Your task to perform on an android device: find which apps use the phone's location Image 0: 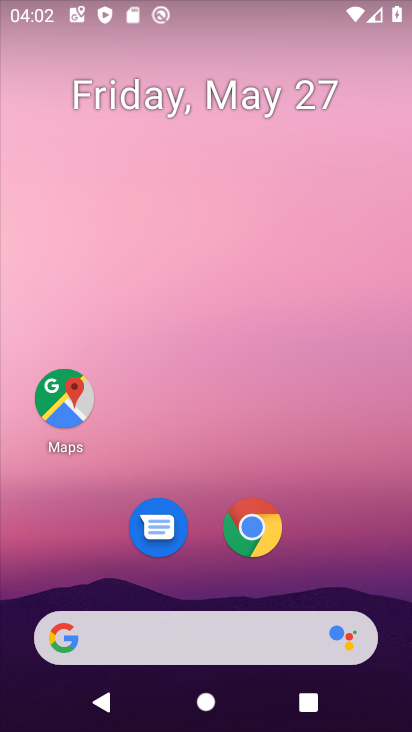
Step 0: drag from (387, 585) to (348, 137)
Your task to perform on an android device: find which apps use the phone's location Image 1: 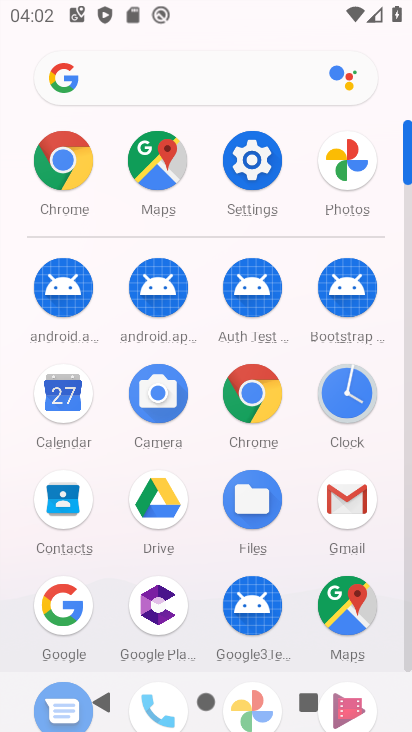
Step 1: click (405, 623)
Your task to perform on an android device: find which apps use the phone's location Image 2: 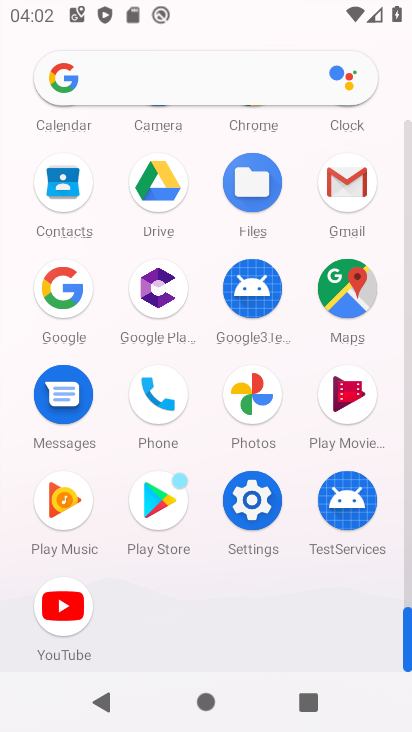
Step 2: click (187, 413)
Your task to perform on an android device: find which apps use the phone's location Image 3: 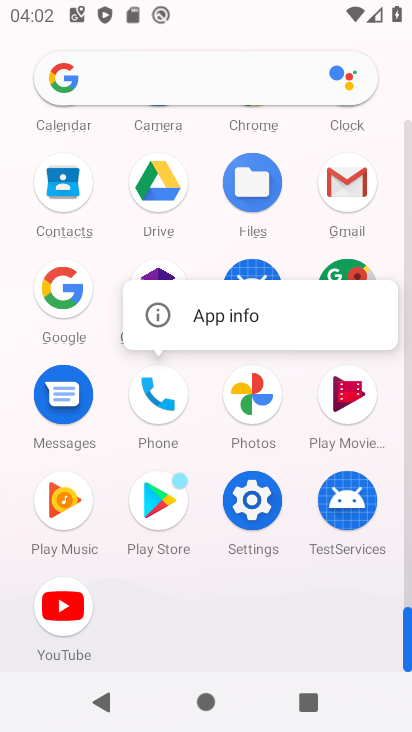
Step 3: click (204, 317)
Your task to perform on an android device: find which apps use the phone's location Image 4: 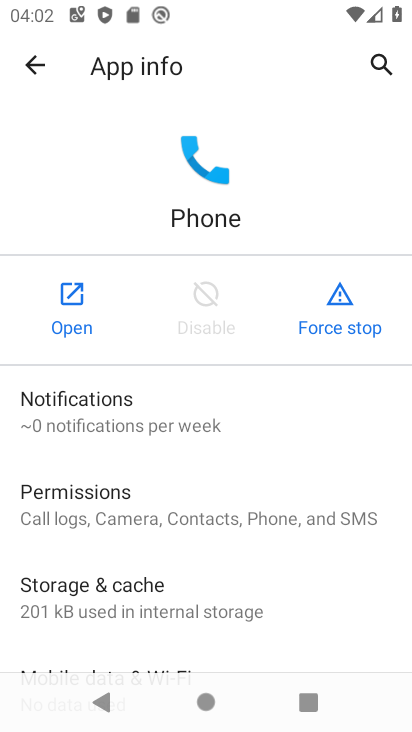
Step 4: click (119, 531)
Your task to perform on an android device: find which apps use the phone's location Image 5: 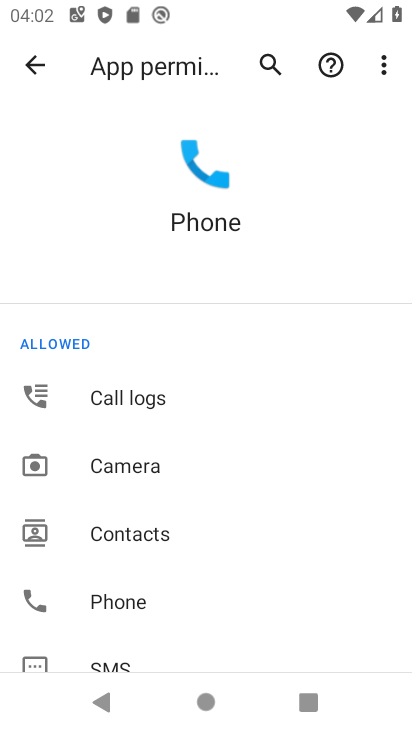
Step 5: drag from (147, 603) to (165, 95)
Your task to perform on an android device: find which apps use the phone's location Image 6: 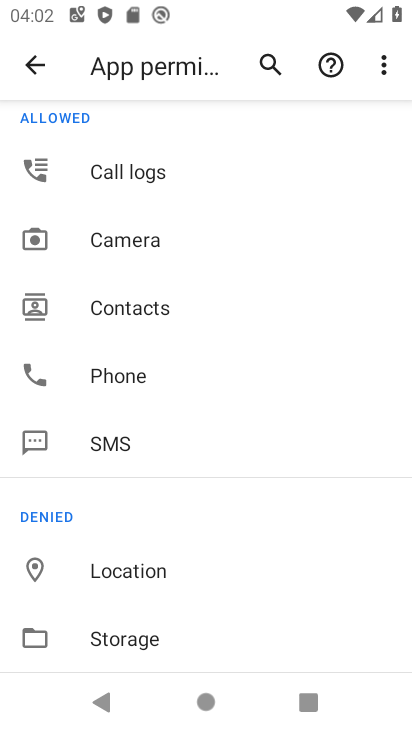
Step 6: click (109, 559)
Your task to perform on an android device: find which apps use the phone's location Image 7: 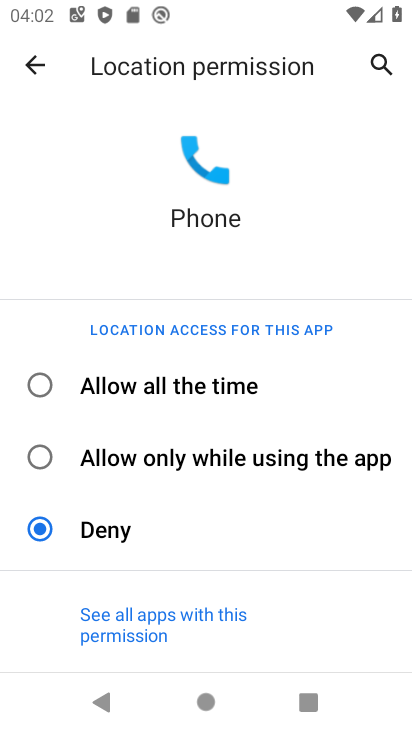
Step 7: drag from (118, 534) to (119, 268)
Your task to perform on an android device: find which apps use the phone's location Image 8: 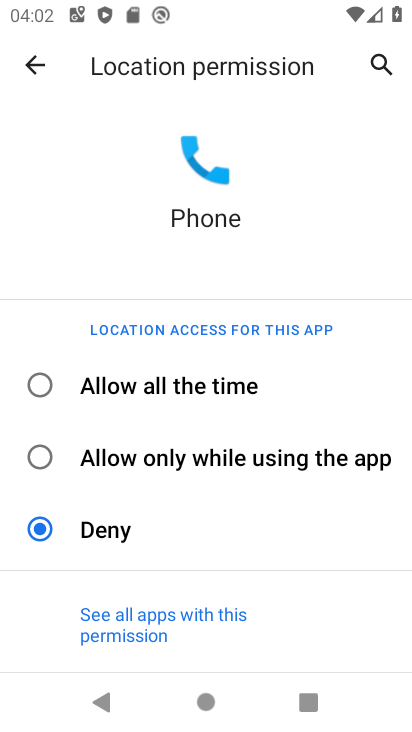
Step 8: click (127, 646)
Your task to perform on an android device: find which apps use the phone's location Image 9: 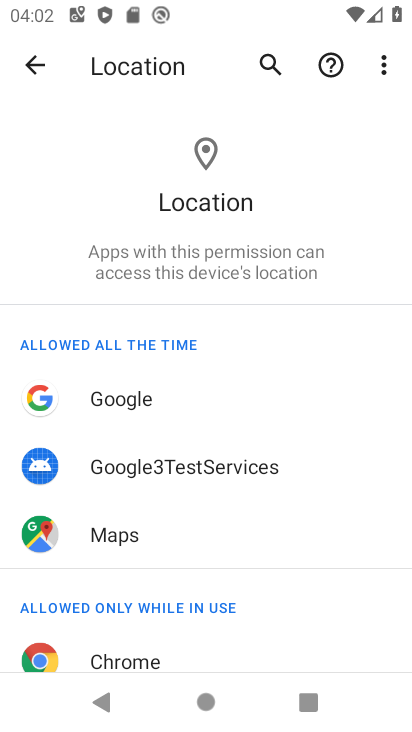
Step 9: task complete